Your task to perform on an android device: turn on the 12-hour format for clock Image 0: 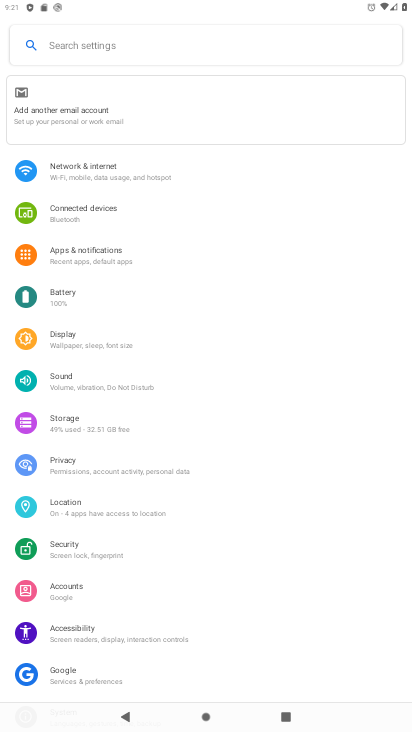
Step 0: press home button
Your task to perform on an android device: turn on the 12-hour format for clock Image 1: 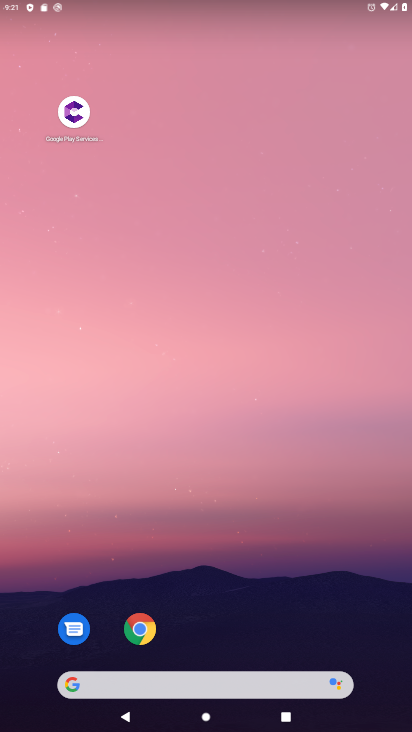
Step 1: drag from (369, 647) to (340, 139)
Your task to perform on an android device: turn on the 12-hour format for clock Image 2: 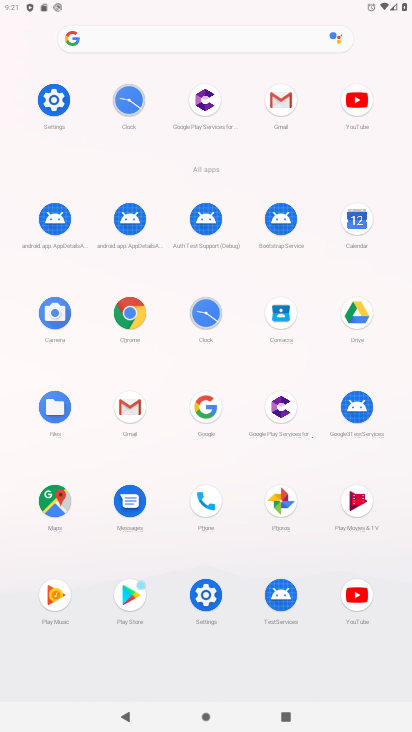
Step 2: click (205, 316)
Your task to perform on an android device: turn on the 12-hour format for clock Image 3: 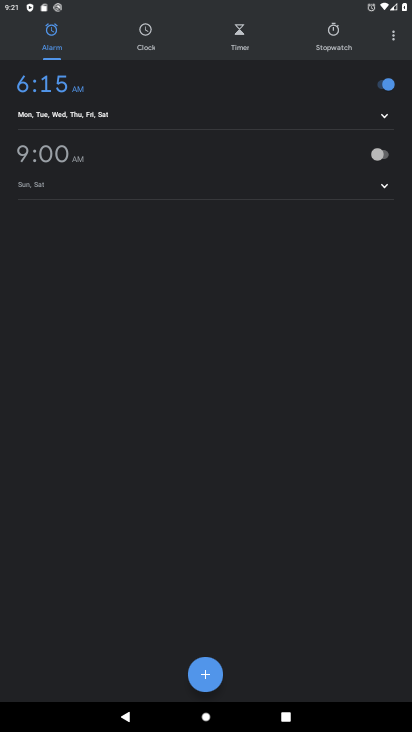
Step 3: click (391, 40)
Your task to perform on an android device: turn on the 12-hour format for clock Image 4: 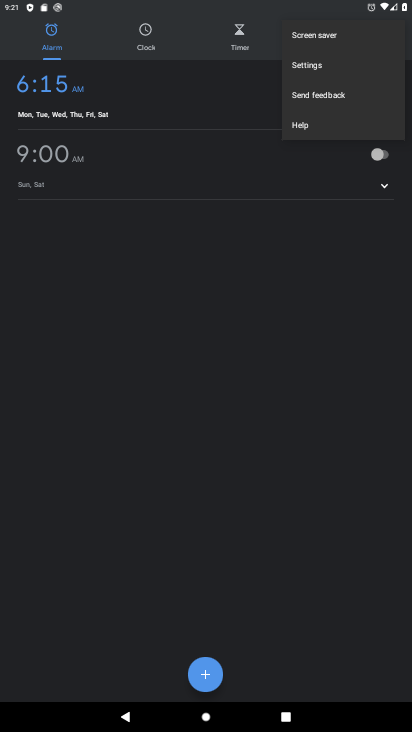
Step 4: click (303, 66)
Your task to perform on an android device: turn on the 12-hour format for clock Image 5: 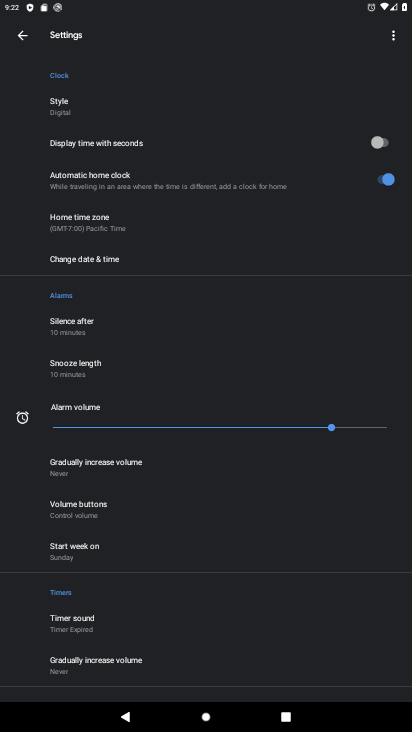
Step 5: click (103, 256)
Your task to perform on an android device: turn on the 12-hour format for clock Image 6: 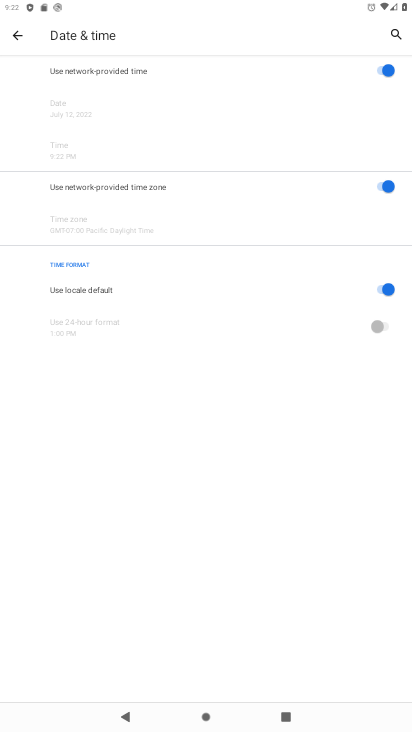
Step 6: task complete